Your task to perform on an android device: Open calendar and show me the second week of next month Image 0: 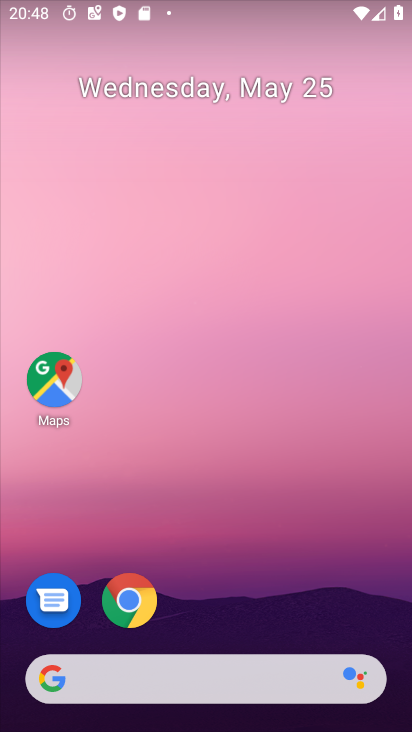
Step 0: drag from (298, 493) to (286, 123)
Your task to perform on an android device: Open calendar and show me the second week of next month Image 1: 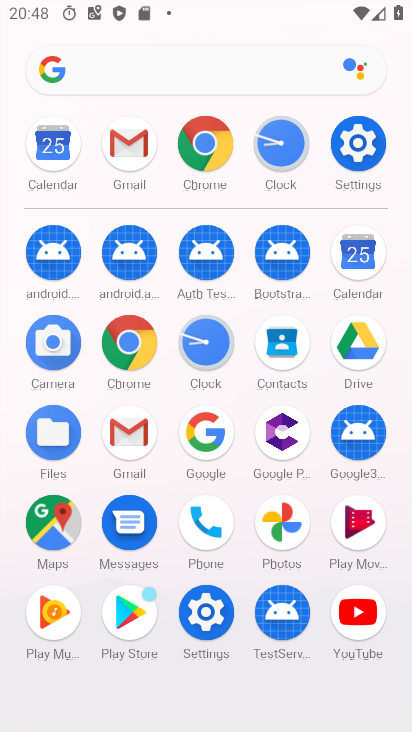
Step 1: click (351, 263)
Your task to perform on an android device: Open calendar and show me the second week of next month Image 2: 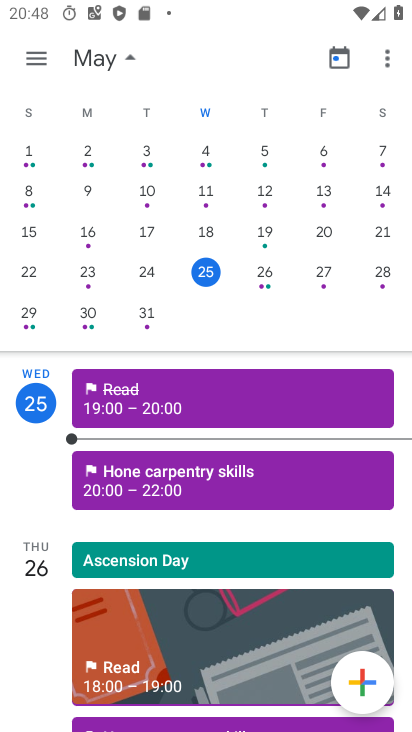
Step 2: drag from (337, 220) to (19, 206)
Your task to perform on an android device: Open calendar and show me the second week of next month Image 3: 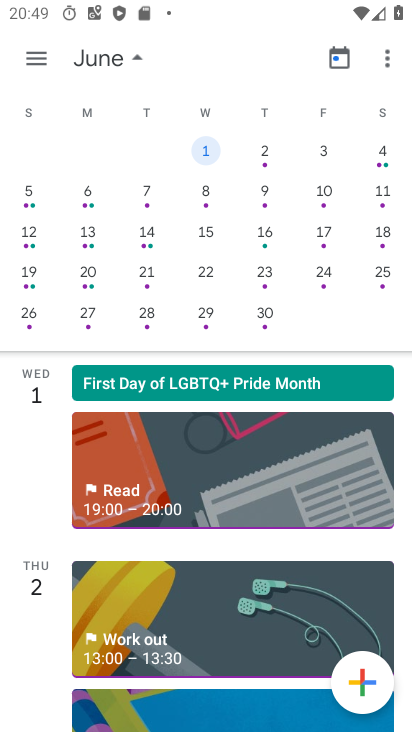
Step 3: click (31, 198)
Your task to perform on an android device: Open calendar and show me the second week of next month Image 4: 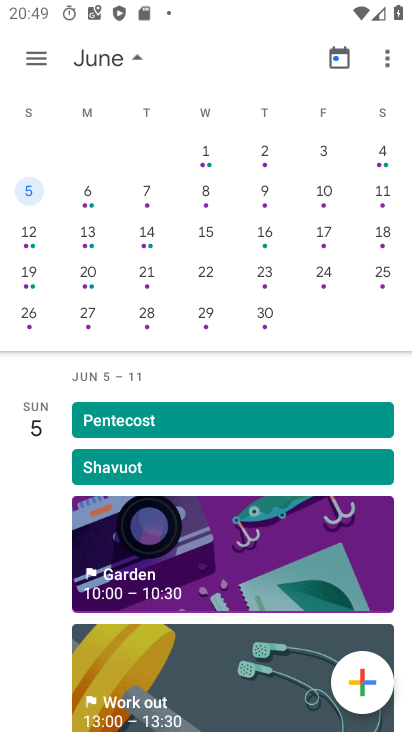
Step 4: task complete